Your task to perform on an android device: Go to Maps Image 0: 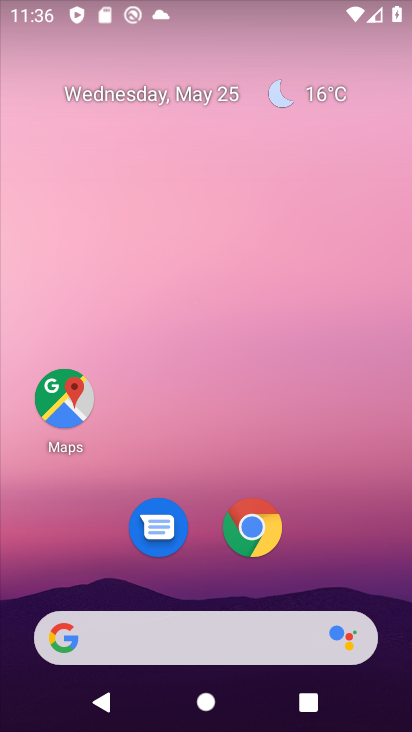
Step 0: click (74, 402)
Your task to perform on an android device: Go to Maps Image 1: 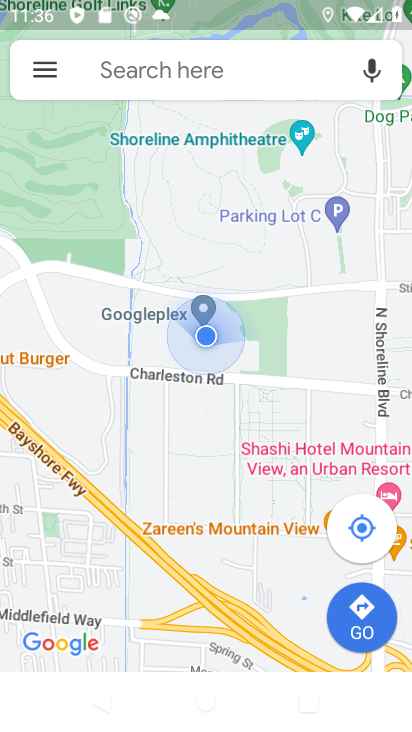
Step 1: task complete